Your task to perform on an android device: open the mobile data screen to see how much data has been used Image 0: 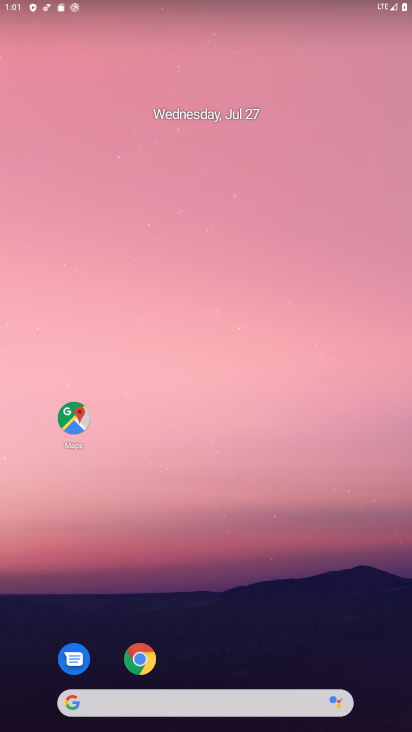
Step 0: click (397, 669)
Your task to perform on an android device: open the mobile data screen to see how much data has been used Image 1: 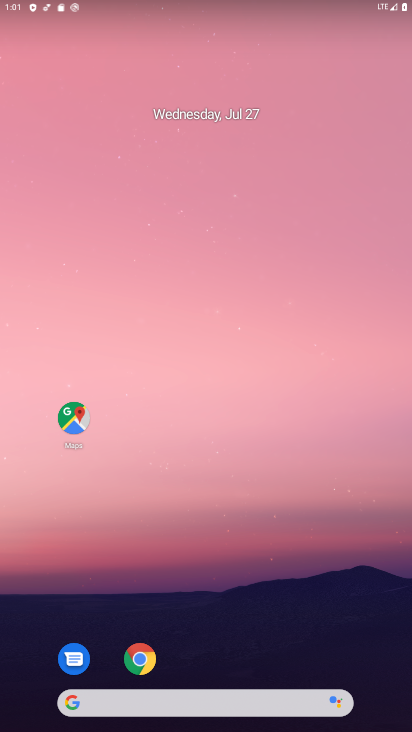
Step 1: drag from (236, 731) to (326, 27)
Your task to perform on an android device: open the mobile data screen to see how much data has been used Image 2: 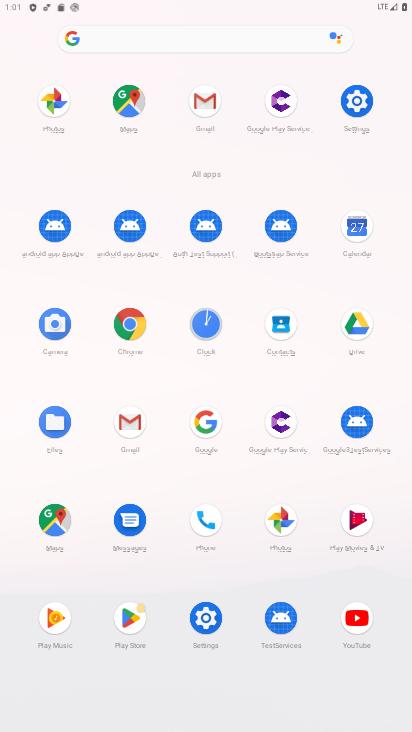
Step 2: click (361, 103)
Your task to perform on an android device: open the mobile data screen to see how much data has been used Image 3: 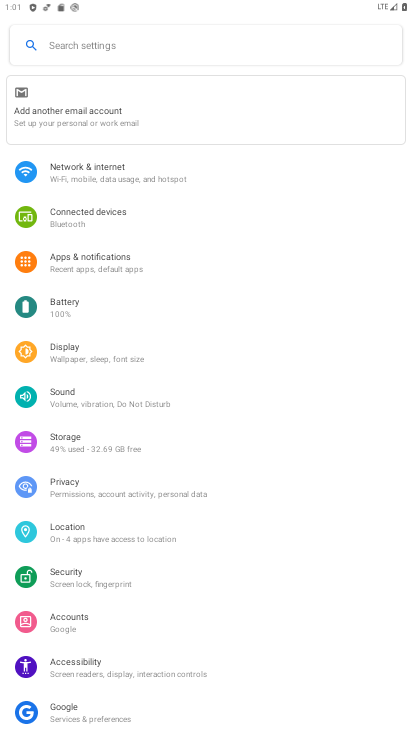
Step 3: click (82, 168)
Your task to perform on an android device: open the mobile data screen to see how much data has been used Image 4: 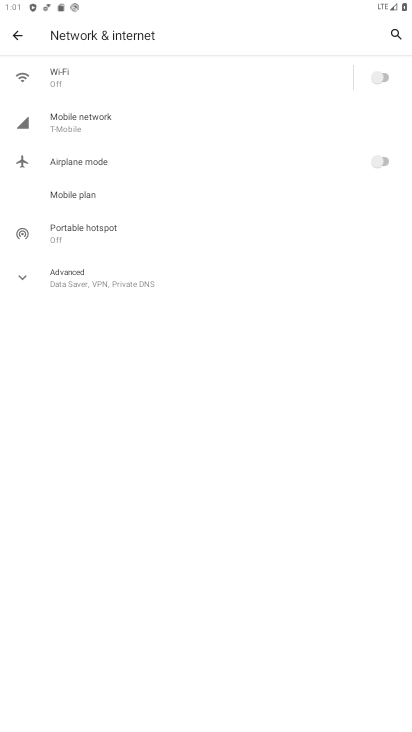
Step 4: click (72, 123)
Your task to perform on an android device: open the mobile data screen to see how much data has been used Image 5: 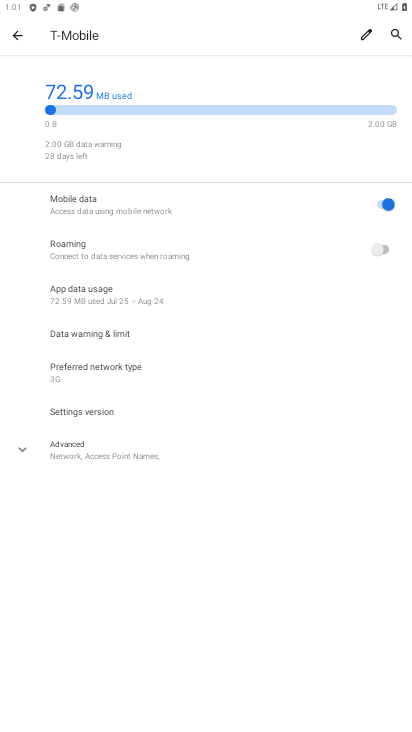
Step 5: click (79, 295)
Your task to perform on an android device: open the mobile data screen to see how much data has been used Image 6: 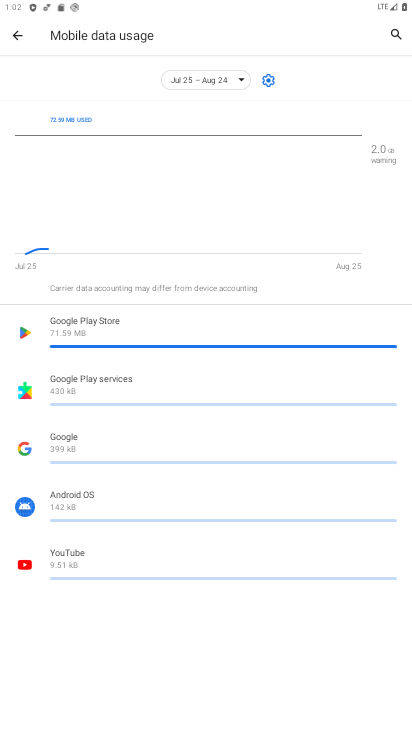
Step 6: task complete